Your task to perform on an android device: Search for usb-c on newegg.com, select the first entry, add it to the cart, then select checkout. Image 0: 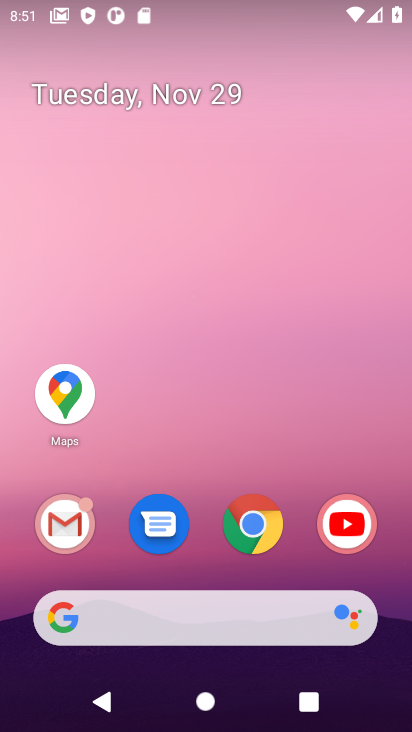
Step 0: click (250, 532)
Your task to perform on an android device: Search for usb-c on newegg.com, select the first entry, add it to the cart, then select checkout. Image 1: 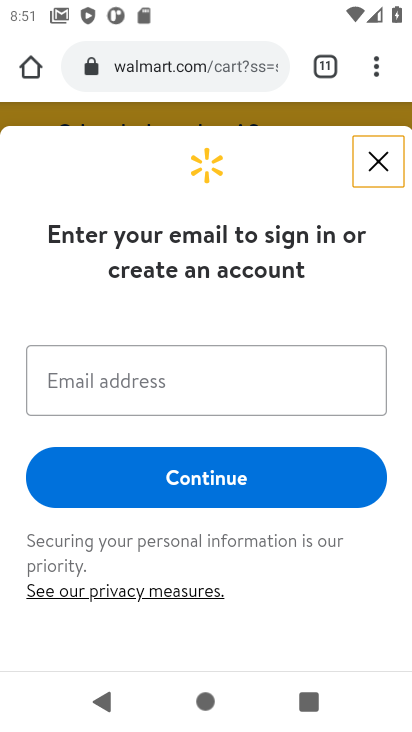
Step 1: click (164, 68)
Your task to perform on an android device: Search for usb-c on newegg.com, select the first entry, add it to the cart, then select checkout. Image 2: 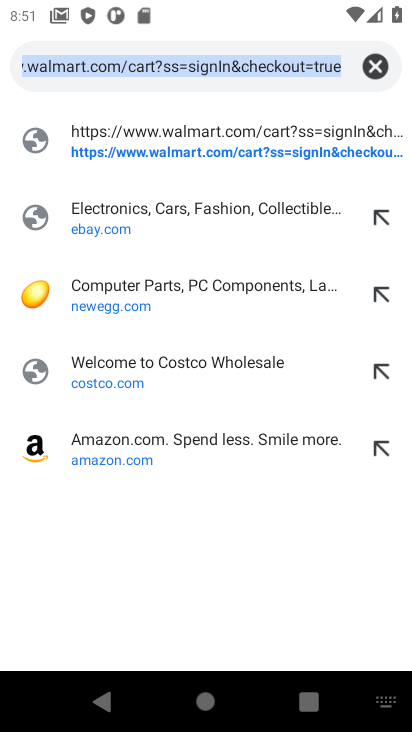
Step 2: click (104, 290)
Your task to perform on an android device: Search for usb-c on newegg.com, select the first entry, add it to the cart, then select checkout. Image 3: 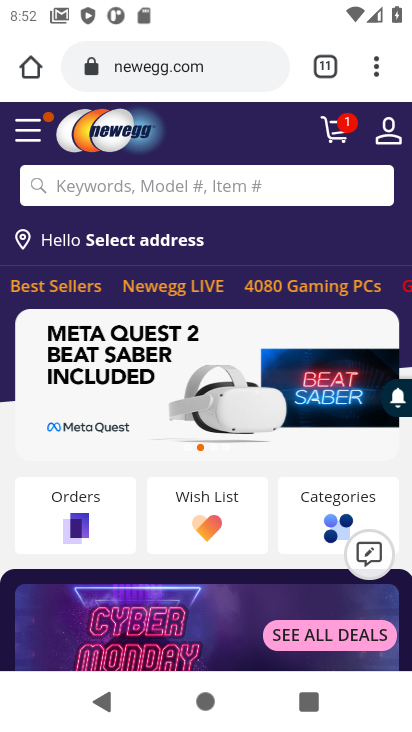
Step 3: click (110, 199)
Your task to perform on an android device: Search for usb-c on newegg.com, select the first entry, add it to the cart, then select checkout. Image 4: 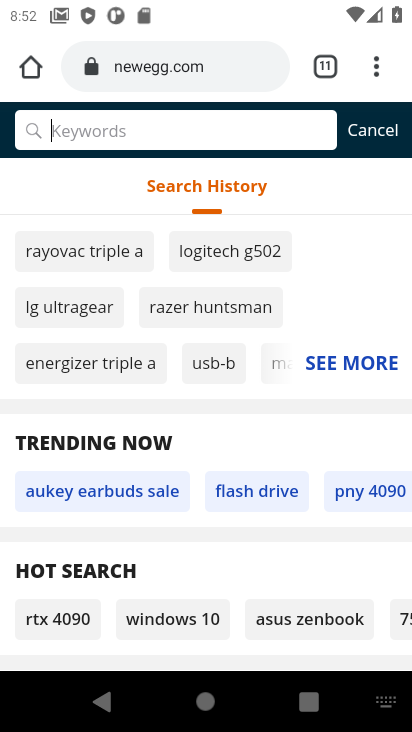
Step 4: type "usb-c"
Your task to perform on an android device: Search for usb-c on newegg.com, select the first entry, add it to the cart, then select checkout. Image 5: 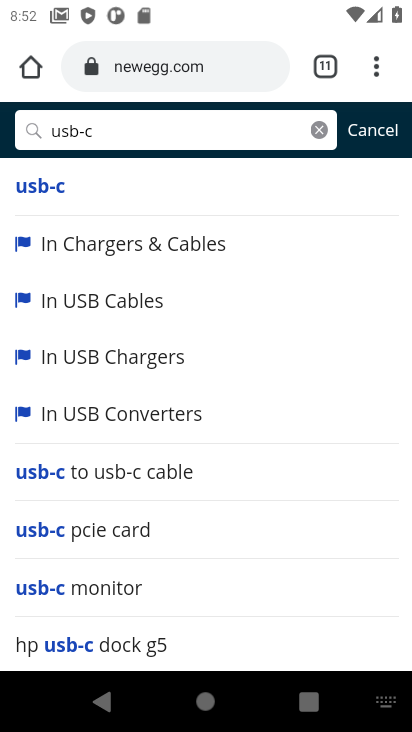
Step 5: click (46, 190)
Your task to perform on an android device: Search for usb-c on newegg.com, select the first entry, add it to the cart, then select checkout. Image 6: 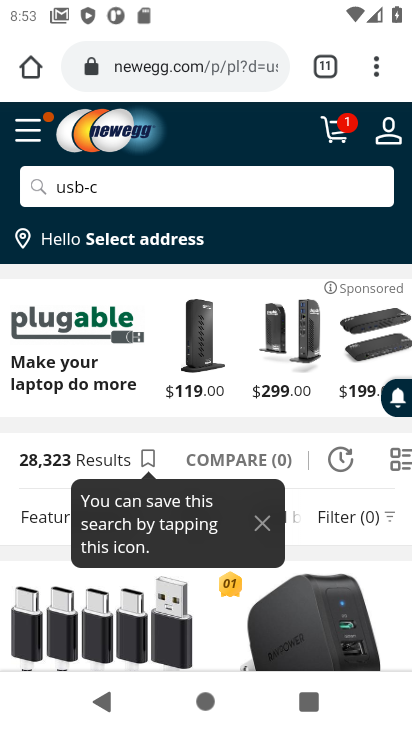
Step 6: drag from (126, 420) to (115, 213)
Your task to perform on an android device: Search for usb-c on newegg.com, select the first entry, add it to the cart, then select checkout. Image 7: 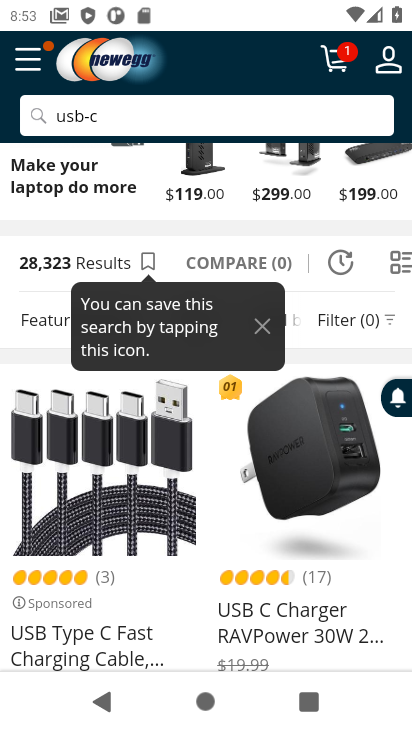
Step 7: drag from (114, 500) to (125, 338)
Your task to perform on an android device: Search for usb-c on newegg.com, select the first entry, add it to the cart, then select checkout. Image 8: 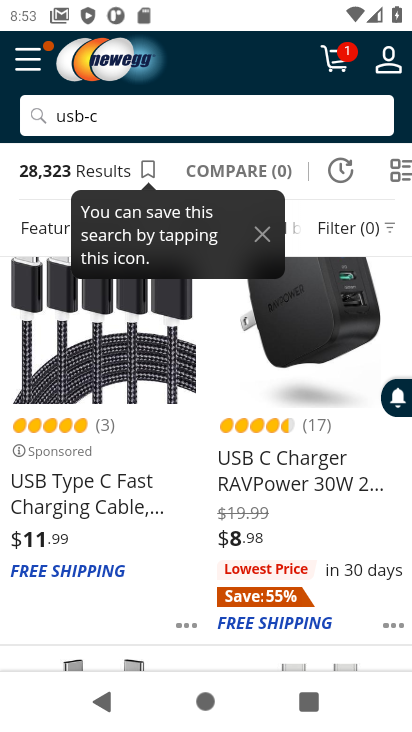
Step 8: click (113, 337)
Your task to perform on an android device: Search for usb-c on newegg.com, select the first entry, add it to the cart, then select checkout. Image 9: 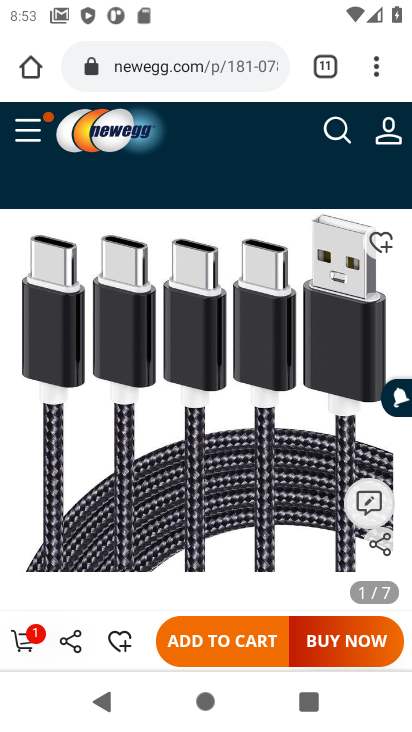
Step 9: click (208, 654)
Your task to perform on an android device: Search for usb-c on newegg.com, select the first entry, add it to the cart, then select checkout. Image 10: 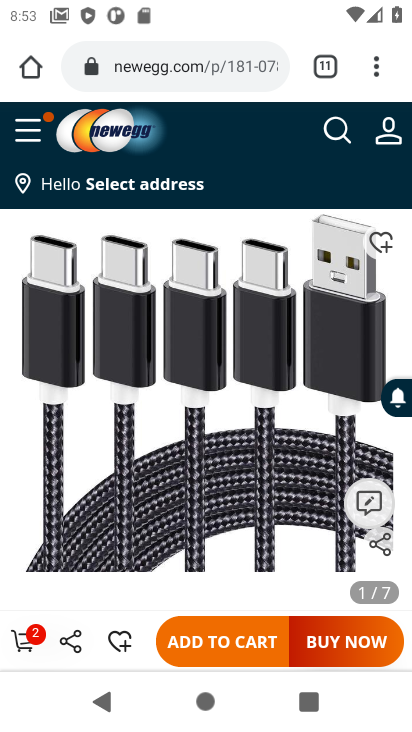
Step 10: click (21, 639)
Your task to perform on an android device: Search for usb-c on newegg.com, select the first entry, add it to the cart, then select checkout. Image 11: 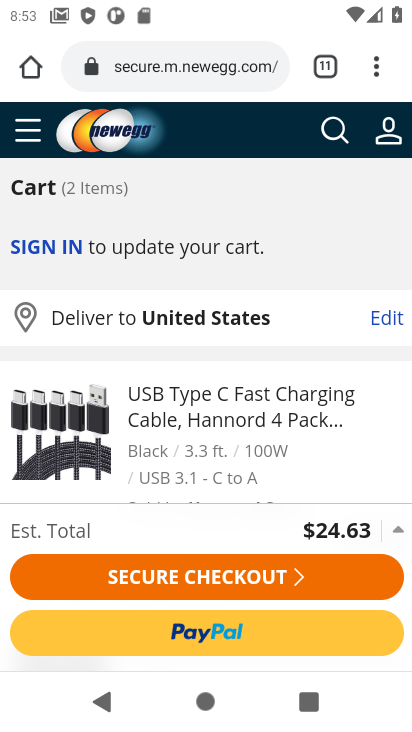
Step 11: click (134, 624)
Your task to perform on an android device: Search for usb-c on newegg.com, select the first entry, add it to the cart, then select checkout. Image 12: 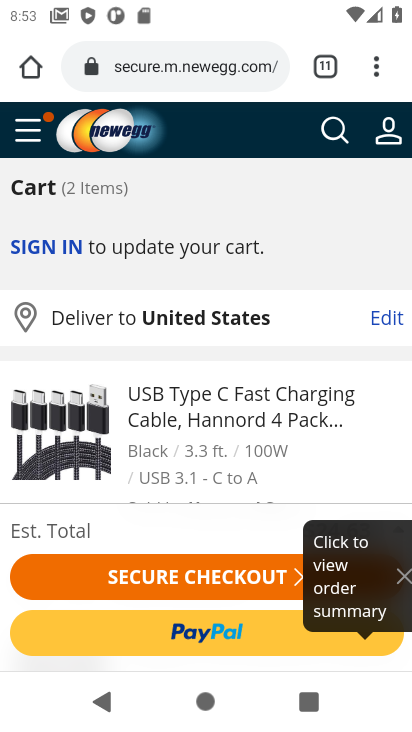
Step 12: click (146, 583)
Your task to perform on an android device: Search for usb-c on newegg.com, select the first entry, add it to the cart, then select checkout. Image 13: 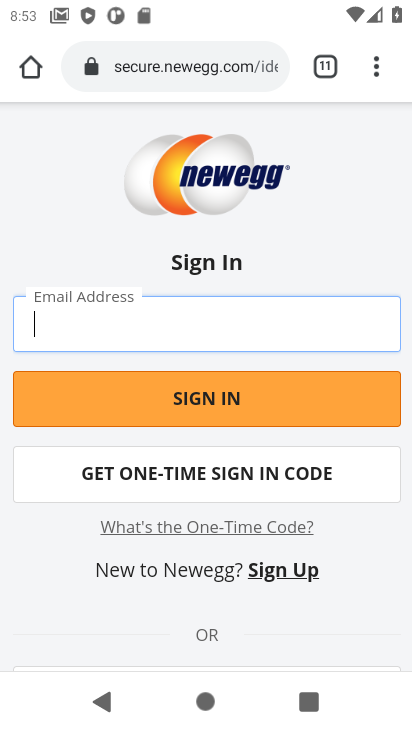
Step 13: task complete